Your task to perform on an android device: Search for sushi restaurants on Maps Image 0: 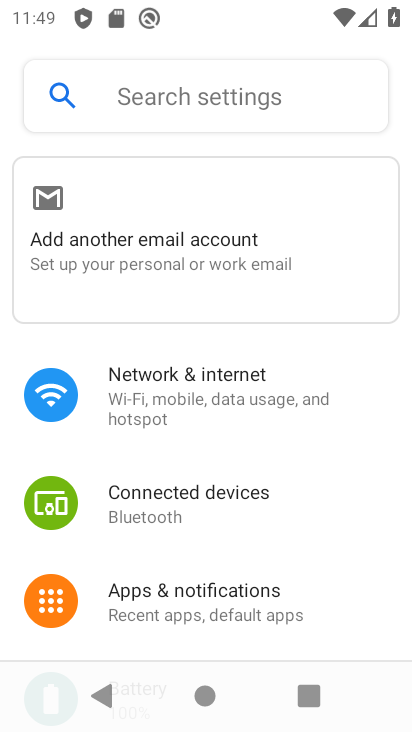
Step 0: press home button
Your task to perform on an android device: Search for sushi restaurants on Maps Image 1: 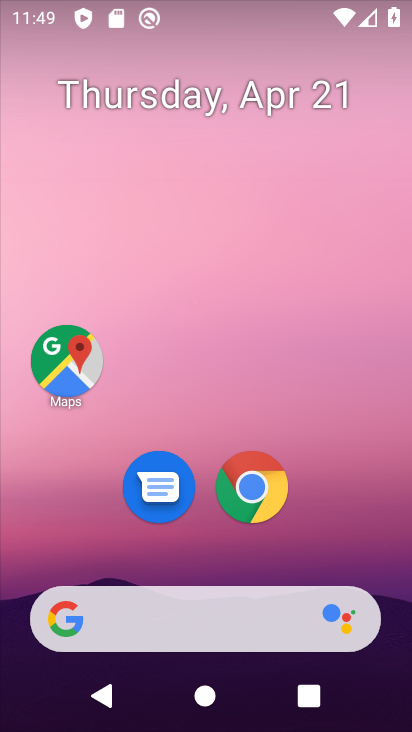
Step 1: click (64, 348)
Your task to perform on an android device: Search for sushi restaurants on Maps Image 2: 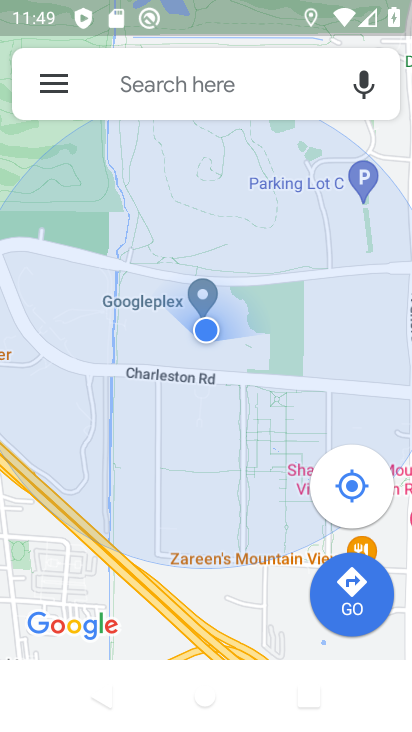
Step 2: click (140, 81)
Your task to perform on an android device: Search for sushi restaurants on Maps Image 3: 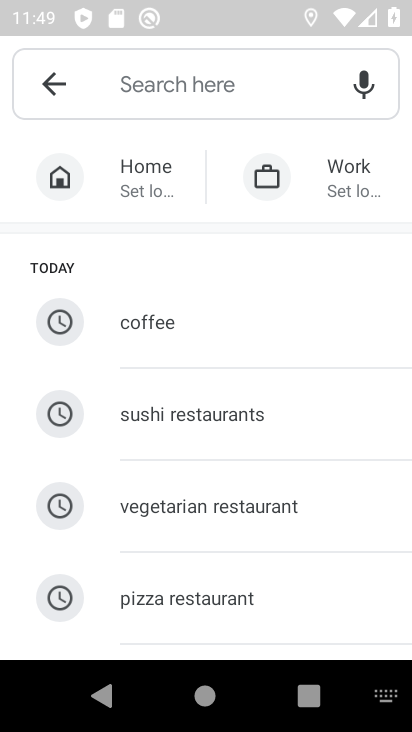
Step 3: click (234, 404)
Your task to perform on an android device: Search for sushi restaurants on Maps Image 4: 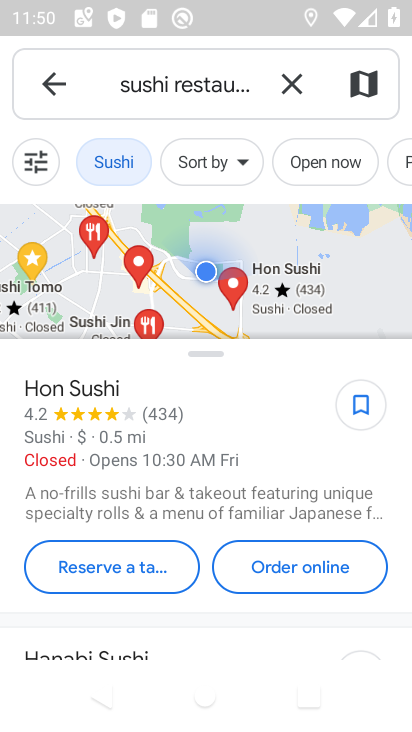
Step 4: task complete